Your task to perform on an android device: Open the phone app and click the voicemail tab. Image 0: 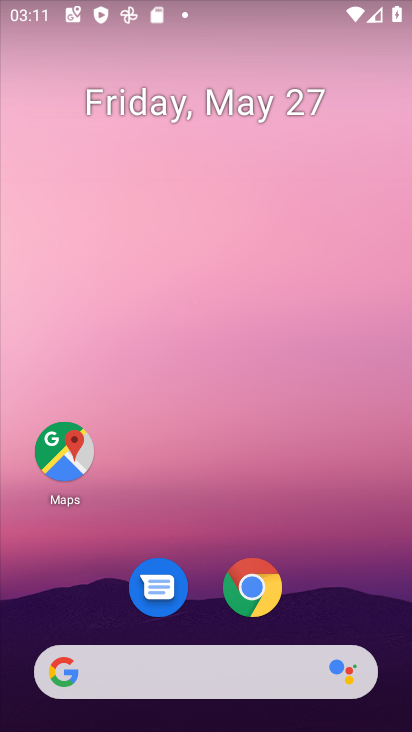
Step 0: drag from (350, 248) to (354, 169)
Your task to perform on an android device: Open the phone app and click the voicemail tab. Image 1: 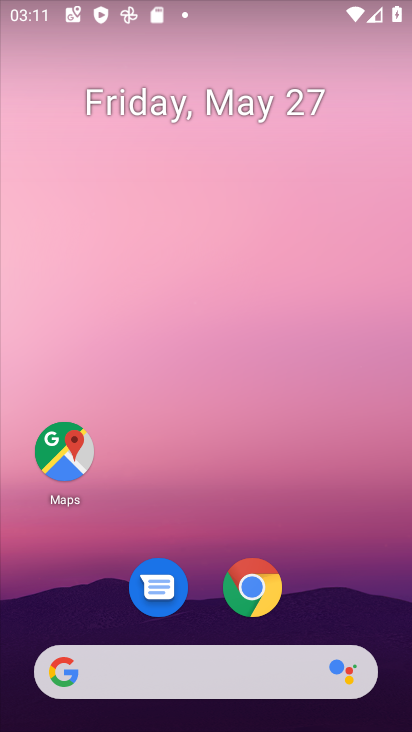
Step 1: drag from (362, 618) to (338, 175)
Your task to perform on an android device: Open the phone app and click the voicemail tab. Image 2: 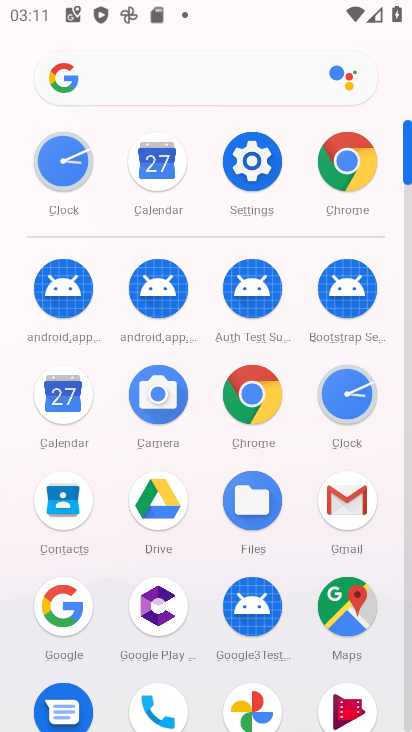
Step 2: click (165, 704)
Your task to perform on an android device: Open the phone app and click the voicemail tab. Image 3: 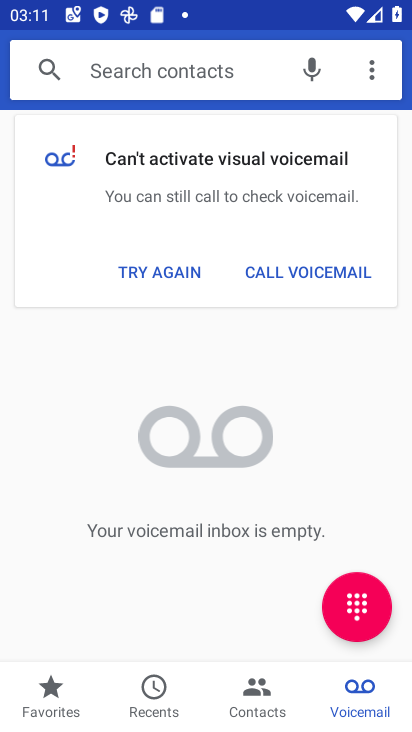
Step 3: click (373, 702)
Your task to perform on an android device: Open the phone app and click the voicemail tab. Image 4: 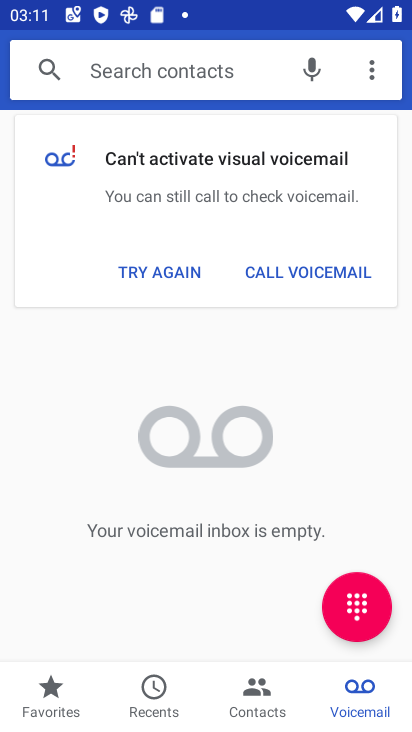
Step 4: task complete